Your task to perform on an android device: turn on wifi Image 0: 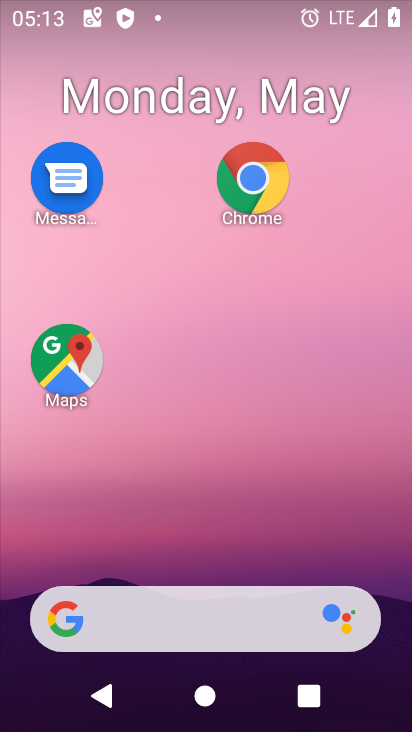
Step 0: click (186, 2)
Your task to perform on an android device: turn on wifi Image 1: 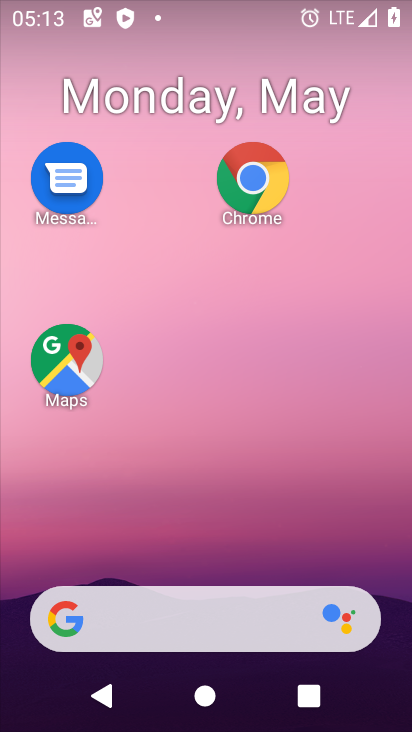
Step 1: drag from (202, 545) to (228, 35)
Your task to perform on an android device: turn on wifi Image 2: 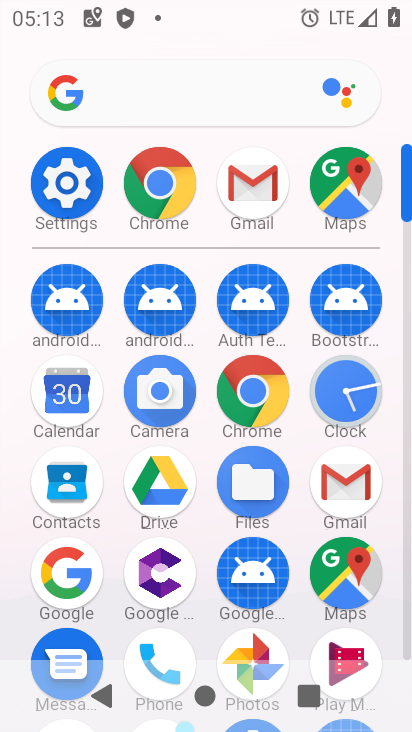
Step 2: click (71, 177)
Your task to perform on an android device: turn on wifi Image 3: 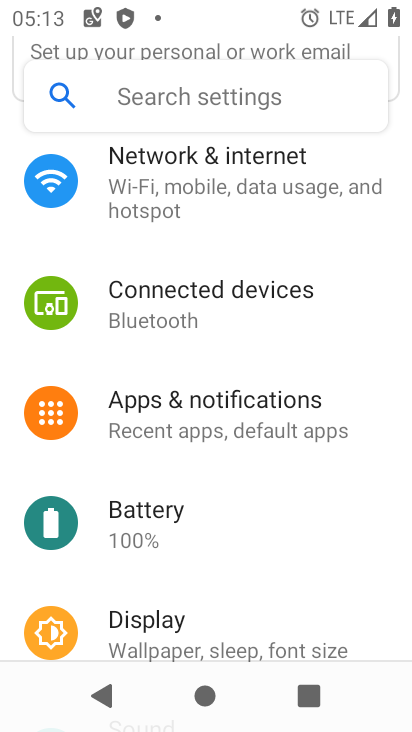
Step 3: click (170, 184)
Your task to perform on an android device: turn on wifi Image 4: 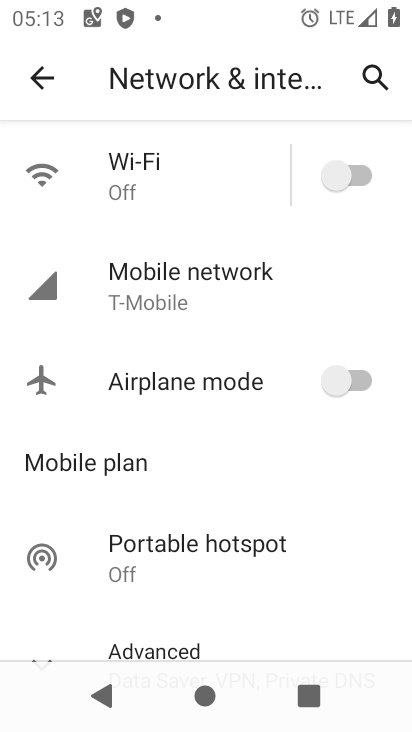
Step 4: click (360, 173)
Your task to perform on an android device: turn on wifi Image 5: 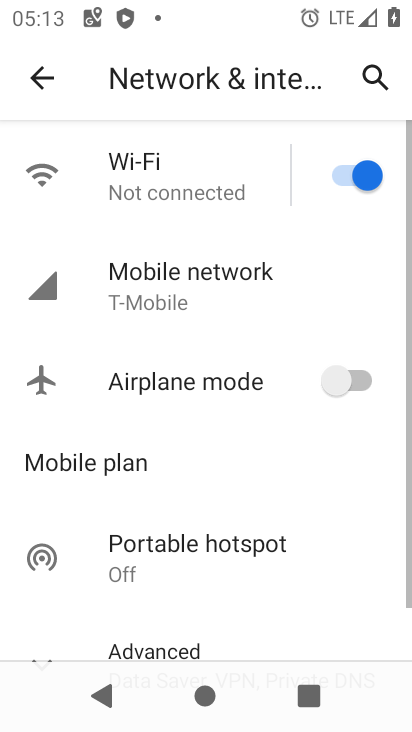
Step 5: task complete